Your task to perform on an android device: manage bookmarks in the chrome app Image 0: 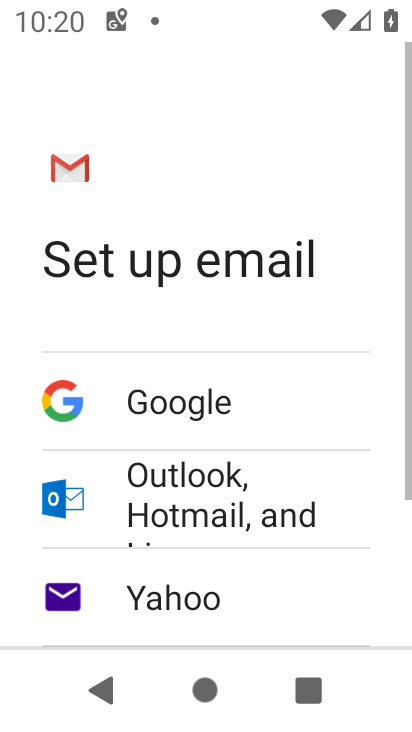
Step 0: press home button
Your task to perform on an android device: manage bookmarks in the chrome app Image 1: 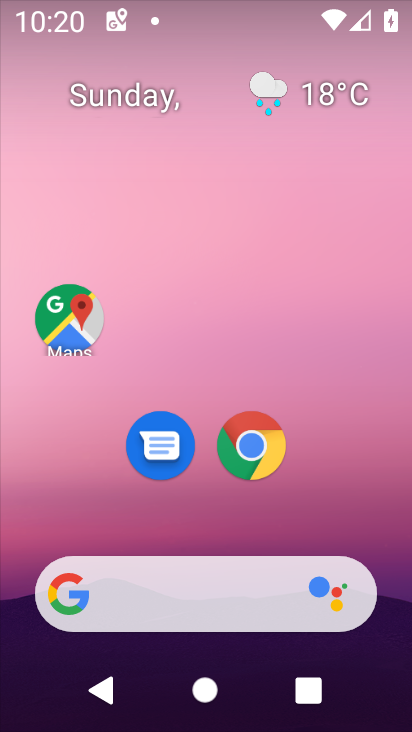
Step 1: click (245, 437)
Your task to perform on an android device: manage bookmarks in the chrome app Image 2: 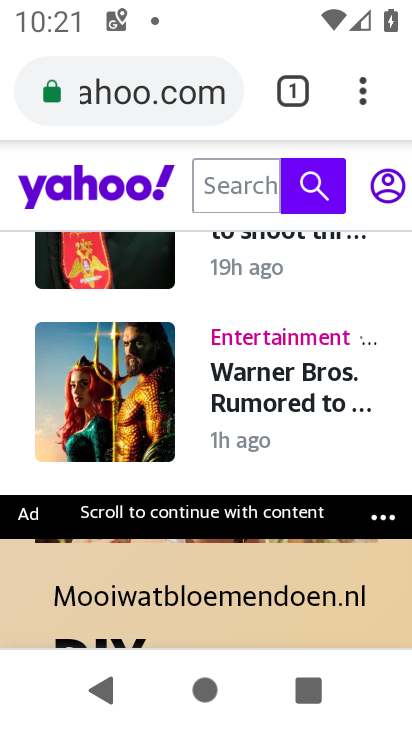
Step 2: click (368, 86)
Your task to perform on an android device: manage bookmarks in the chrome app Image 3: 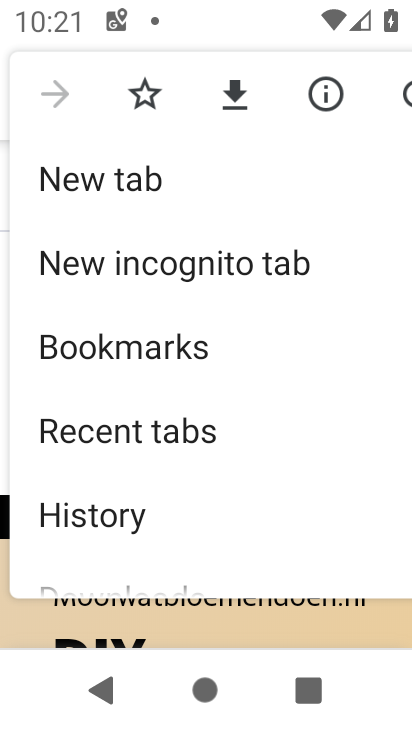
Step 3: click (229, 345)
Your task to perform on an android device: manage bookmarks in the chrome app Image 4: 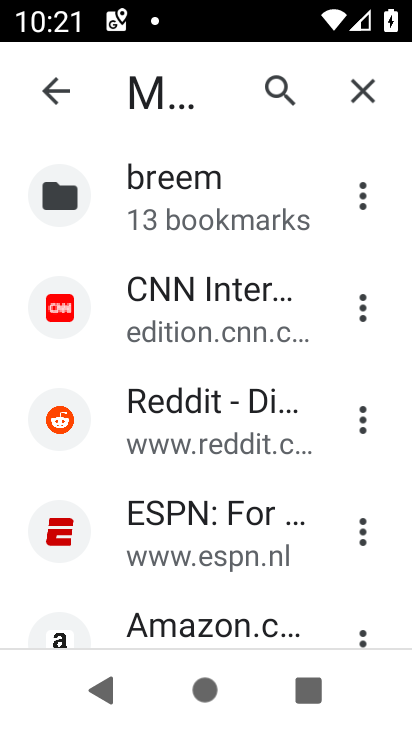
Step 4: click (366, 417)
Your task to perform on an android device: manage bookmarks in the chrome app Image 5: 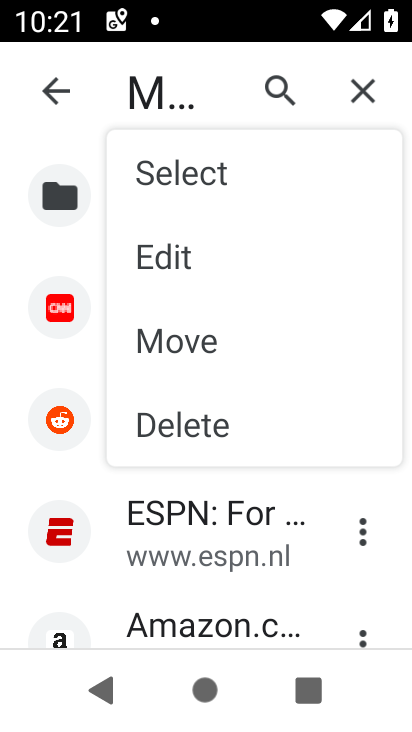
Step 5: click (235, 422)
Your task to perform on an android device: manage bookmarks in the chrome app Image 6: 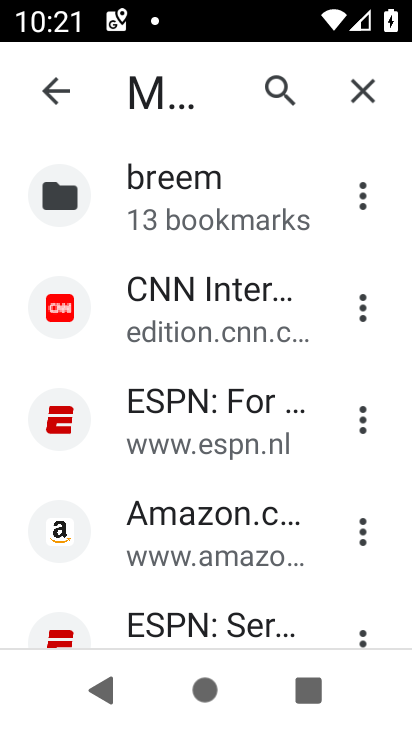
Step 6: task complete